Your task to perform on an android device: Open the web browser Image 0: 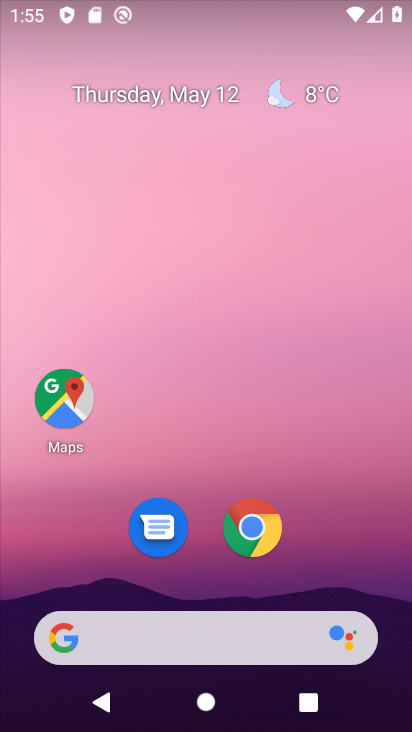
Step 0: drag from (77, 608) to (280, 107)
Your task to perform on an android device: Open the web browser Image 1: 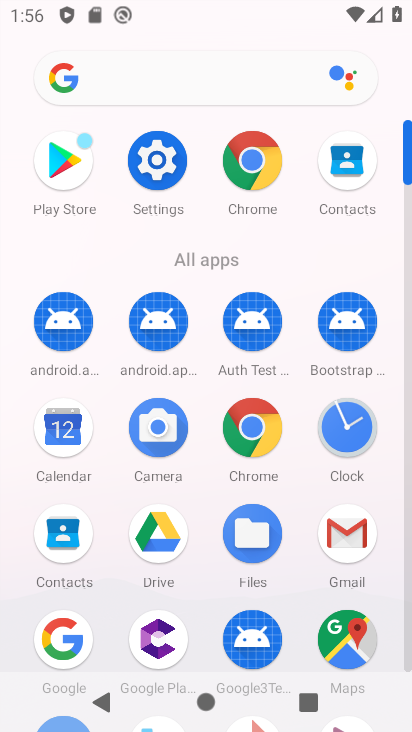
Step 1: click (58, 643)
Your task to perform on an android device: Open the web browser Image 2: 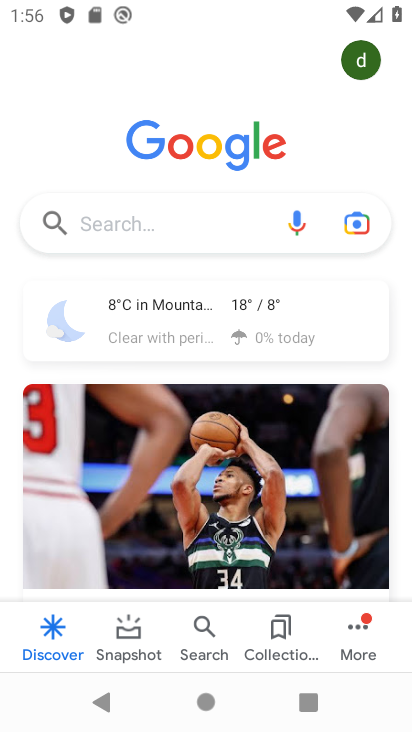
Step 2: task complete